Your task to perform on an android device: open app "Adobe Acrobat Reader: Edit PDF" (install if not already installed), go to login, and select forgot password Image 0: 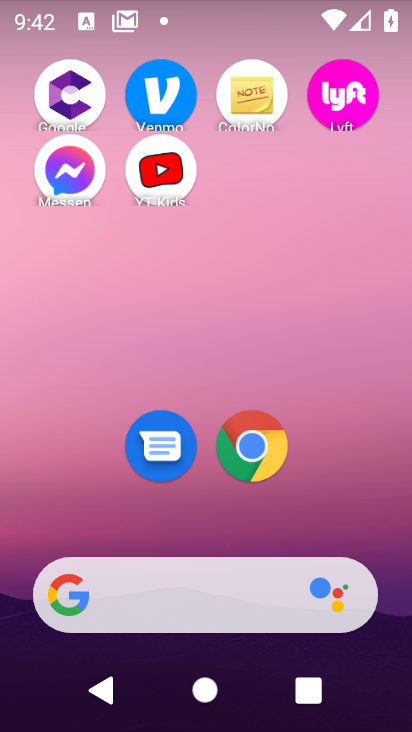
Step 0: drag from (173, 502) to (238, 0)
Your task to perform on an android device: open app "Adobe Acrobat Reader: Edit PDF" (install if not already installed), go to login, and select forgot password Image 1: 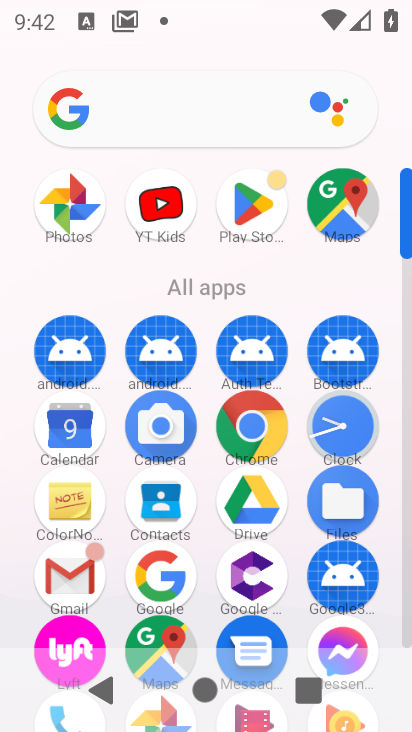
Step 1: click (241, 191)
Your task to perform on an android device: open app "Adobe Acrobat Reader: Edit PDF" (install if not already installed), go to login, and select forgot password Image 2: 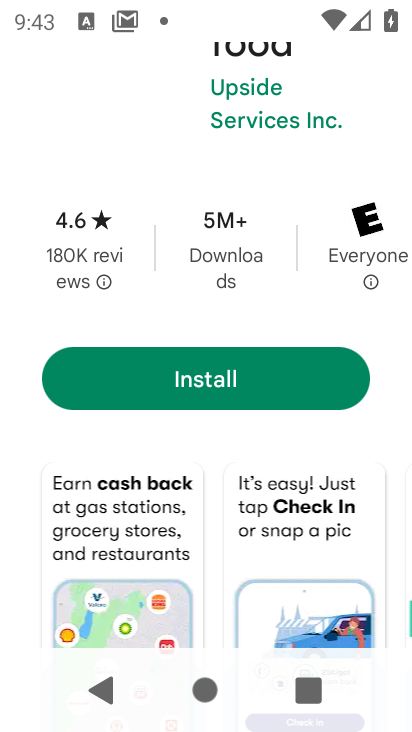
Step 2: drag from (256, 164) to (268, 610)
Your task to perform on an android device: open app "Adobe Acrobat Reader: Edit PDF" (install if not already installed), go to login, and select forgot password Image 3: 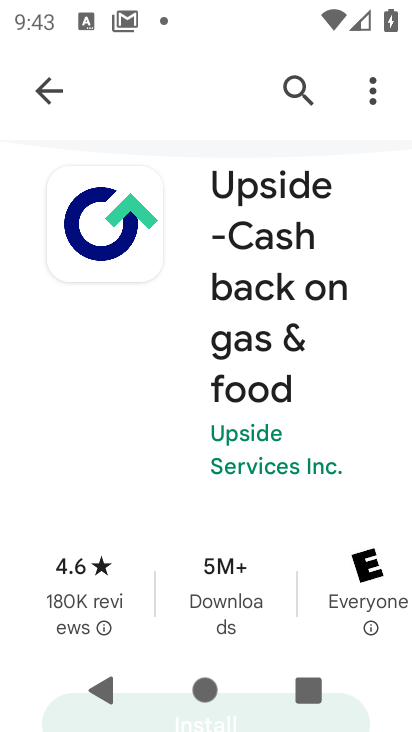
Step 3: click (285, 82)
Your task to perform on an android device: open app "Adobe Acrobat Reader: Edit PDF" (install if not already installed), go to login, and select forgot password Image 4: 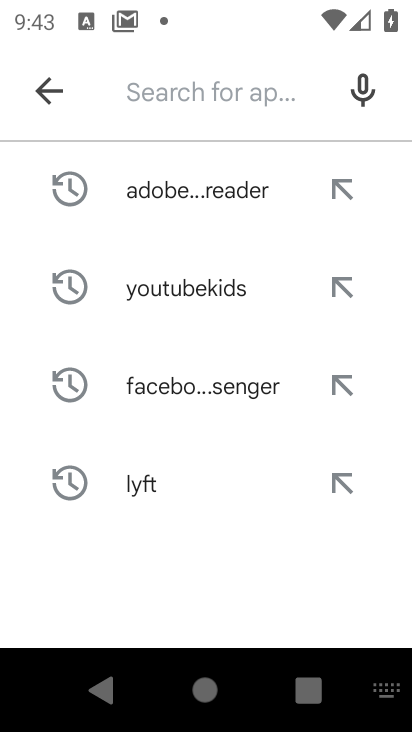
Step 4: click (191, 189)
Your task to perform on an android device: open app "Adobe Acrobat Reader: Edit PDF" (install if not already installed), go to login, and select forgot password Image 5: 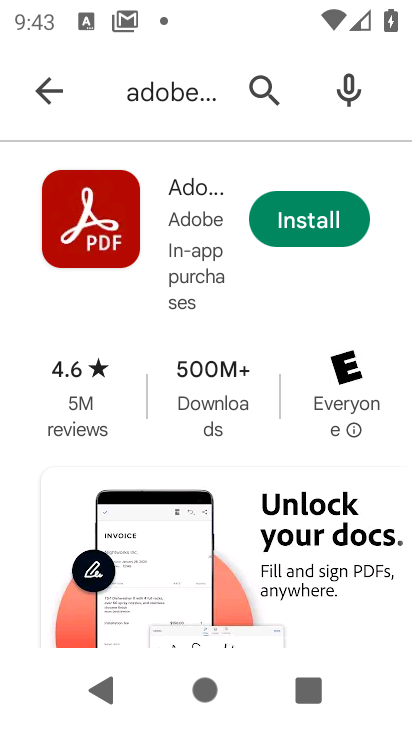
Step 5: click (290, 211)
Your task to perform on an android device: open app "Adobe Acrobat Reader: Edit PDF" (install if not already installed), go to login, and select forgot password Image 6: 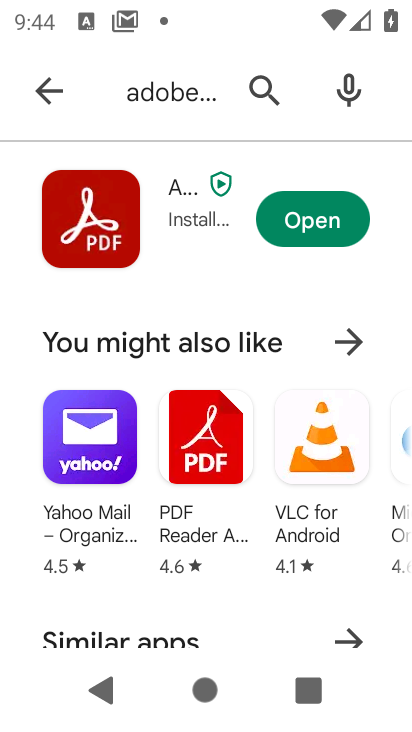
Step 6: click (304, 220)
Your task to perform on an android device: open app "Adobe Acrobat Reader: Edit PDF" (install if not already installed), go to login, and select forgot password Image 7: 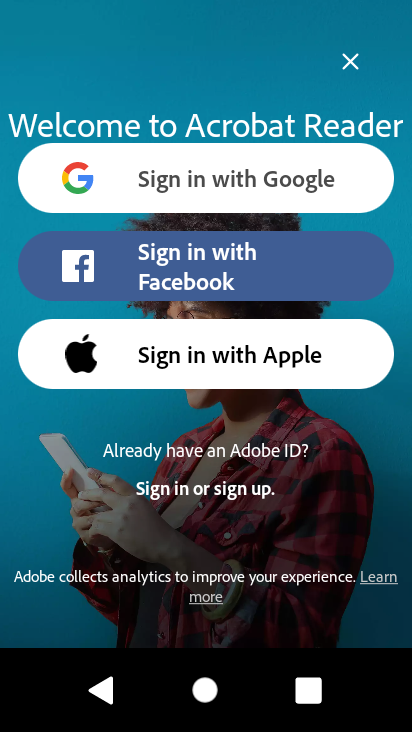
Step 7: click (185, 492)
Your task to perform on an android device: open app "Adobe Acrobat Reader: Edit PDF" (install if not already installed), go to login, and select forgot password Image 8: 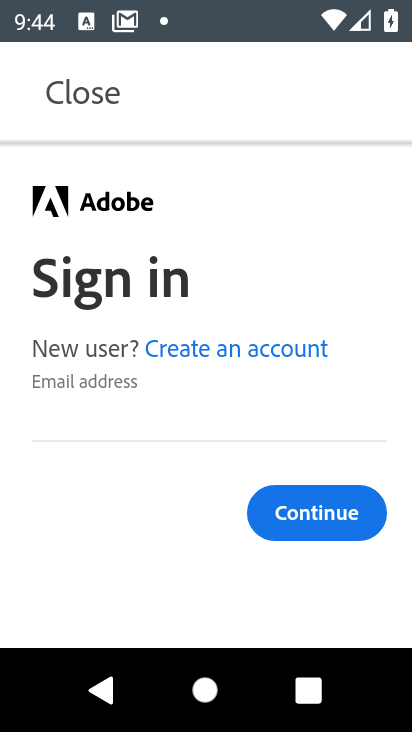
Step 8: drag from (158, 571) to (282, 95)
Your task to perform on an android device: open app "Adobe Acrobat Reader: Edit PDF" (install if not already installed), go to login, and select forgot password Image 9: 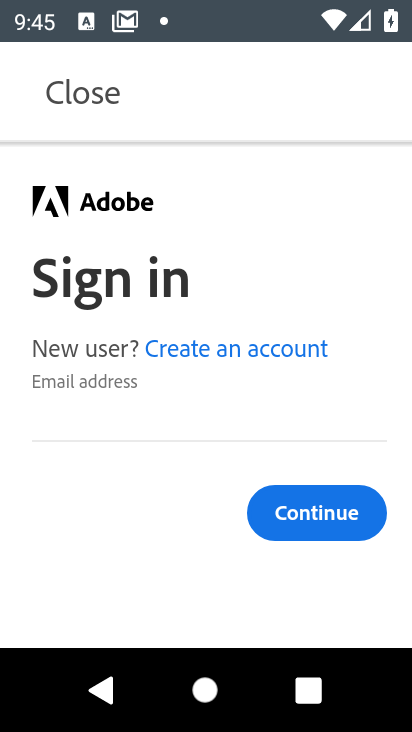
Step 9: drag from (181, 582) to (272, 128)
Your task to perform on an android device: open app "Adobe Acrobat Reader: Edit PDF" (install if not already installed), go to login, and select forgot password Image 10: 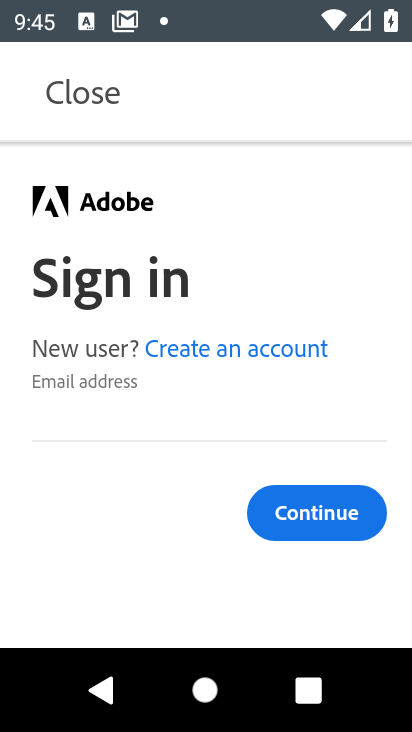
Step 10: click (299, 496)
Your task to perform on an android device: open app "Adobe Acrobat Reader: Edit PDF" (install if not already installed), go to login, and select forgot password Image 11: 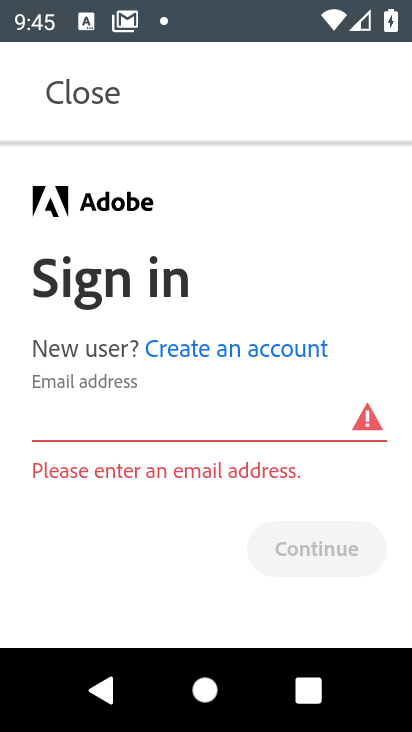
Step 11: task complete